Your task to perform on an android device: What is the news today? Image 0: 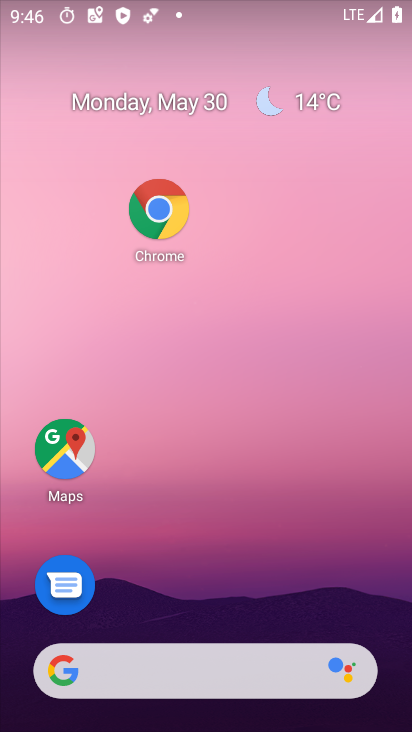
Step 0: drag from (228, 622) to (350, 56)
Your task to perform on an android device: What is the news today? Image 1: 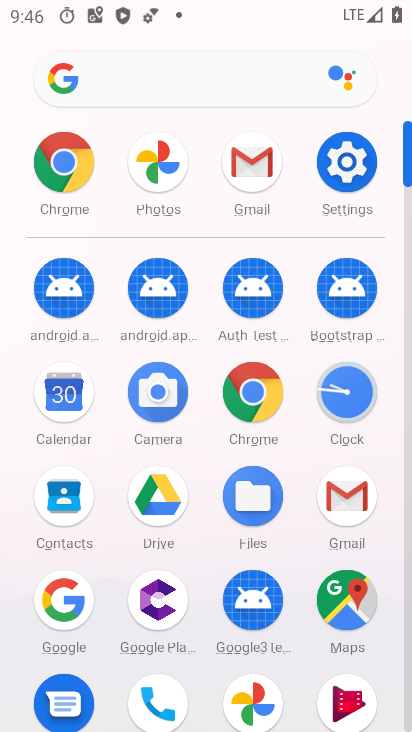
Step 1: click (145, 68)
Your task to perform on an android device: What is the news today? Image 2: 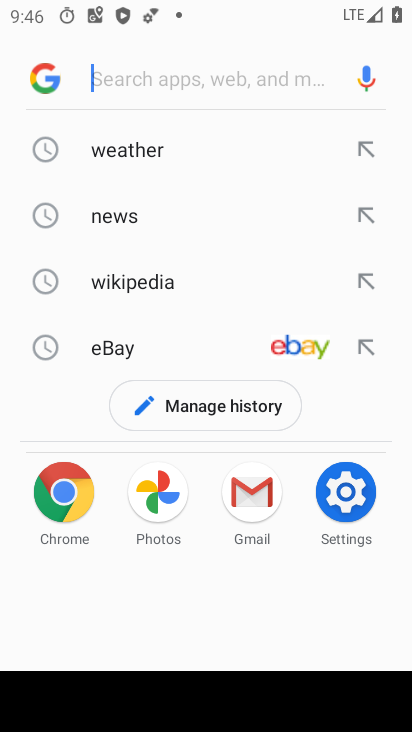
Step 2: click (147, 208)
Your task to perform on an android device: What is the news today? Image 3: 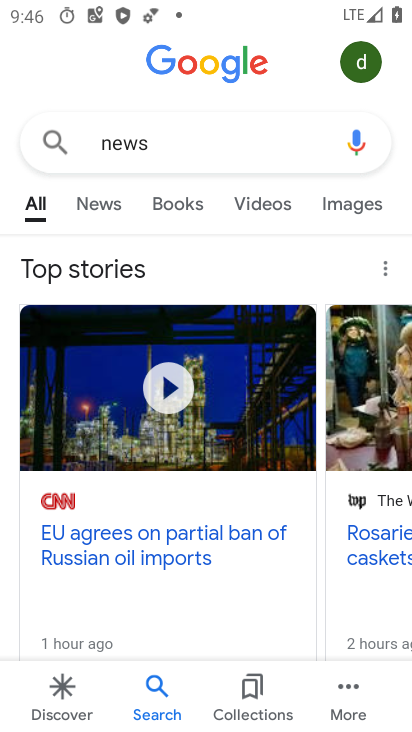
Step 3: click (197, 143)
Your task to perform on an android device: What is the news today? Image 4: 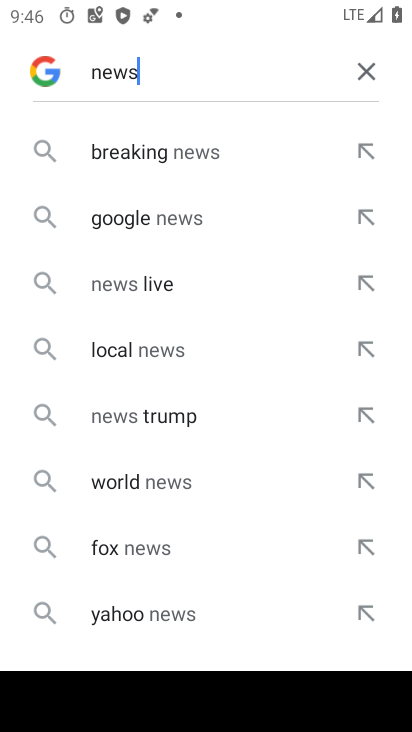
Step 4: type " today"
Your task to perform on an android device: What is the news today? Image 5: 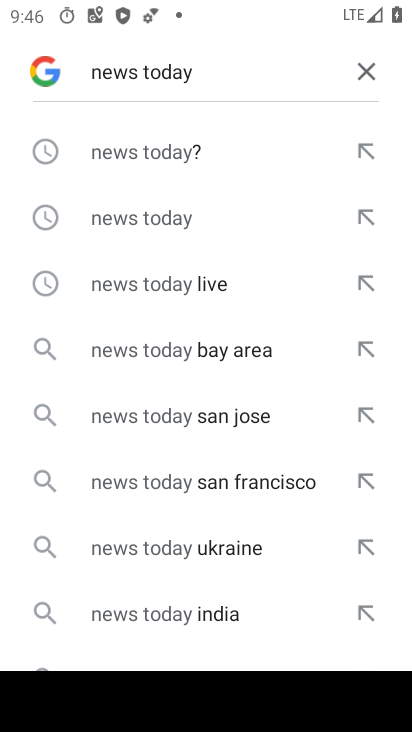
Step 5: click (193, 162)
Your task to perform on an android device: What is the news today? Image 6: 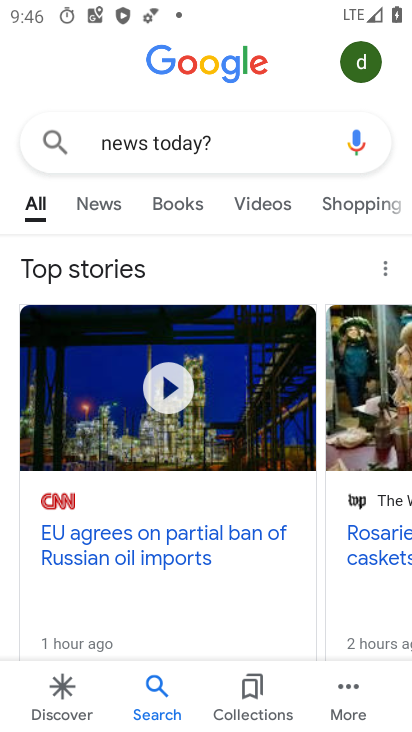
Step 6: task complete